Your task to perform on an android device: change notifications settings Image 0: 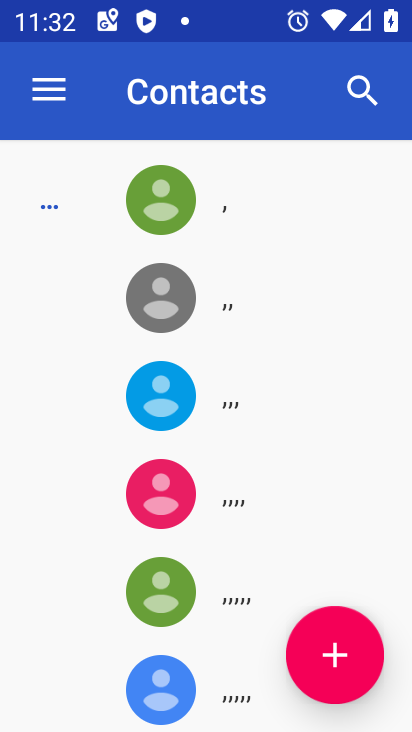
Step 0: press home button
Your task to perform on an android device: change notifications settings Image 1: 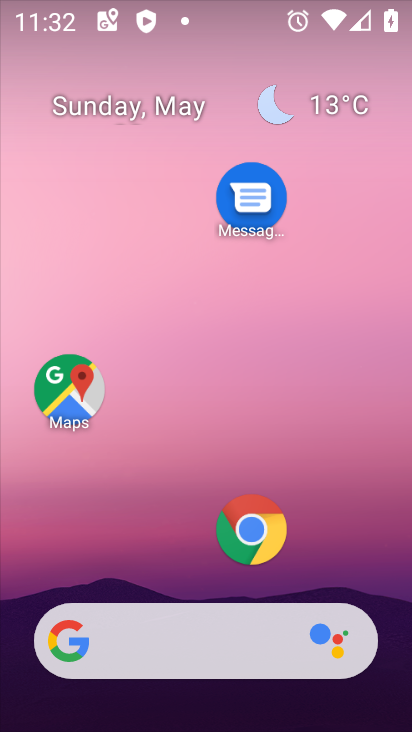
Step 1: drag from (153, 449) to (177, 2)
Your task to perform on an android device: change notifications settings Image 2: 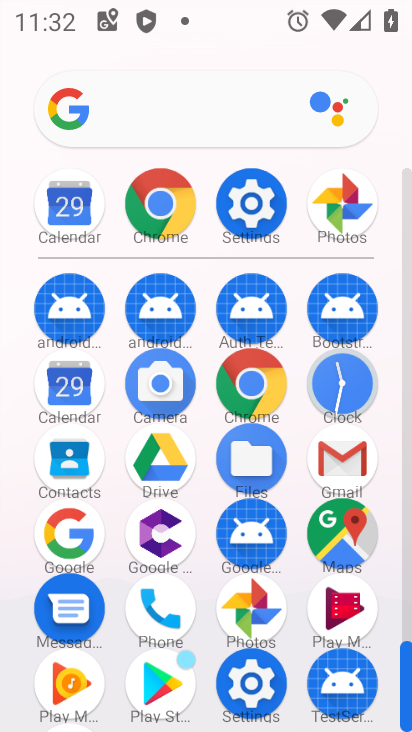
Step 2: click (252, 211)
Your task to perform on an android device: change notifications settings Image 3: 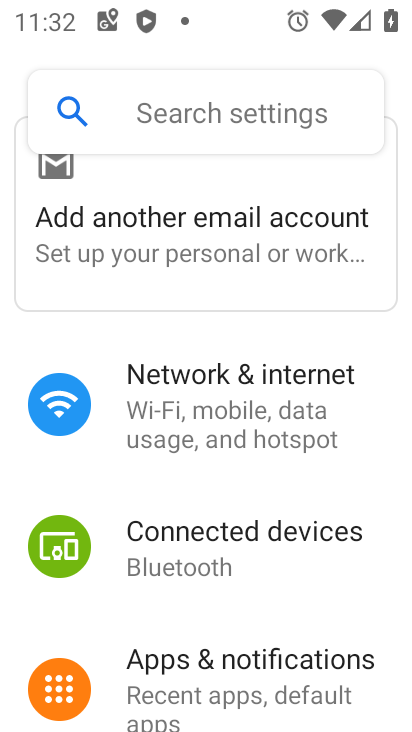
Step 3: click (254, 668)
Your task to perform on an android device: change notifications settings Image 4: 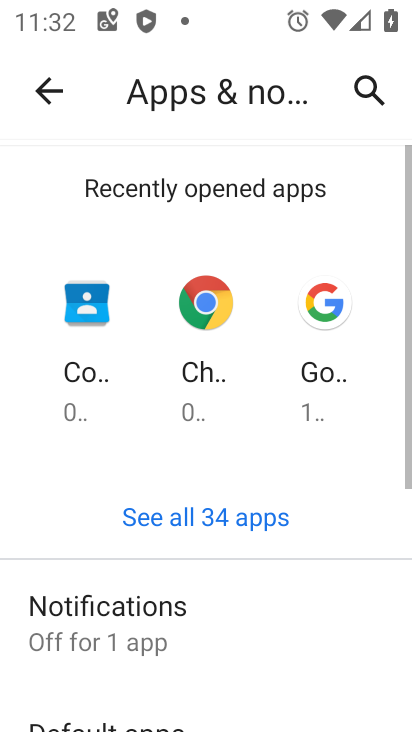
Step 4: drag from (170, 628) to (183, 272)
Your task to perform on an android device: change notifications settings Image 5: 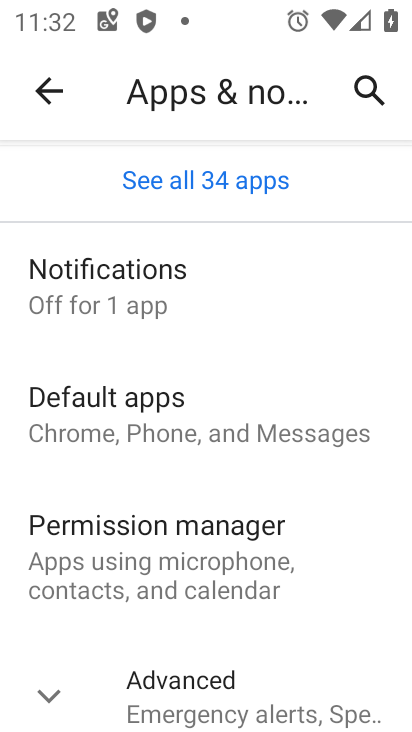
Step 5: click (151, 292)
Your task to perform on an android device: change notifications settings Image 6: 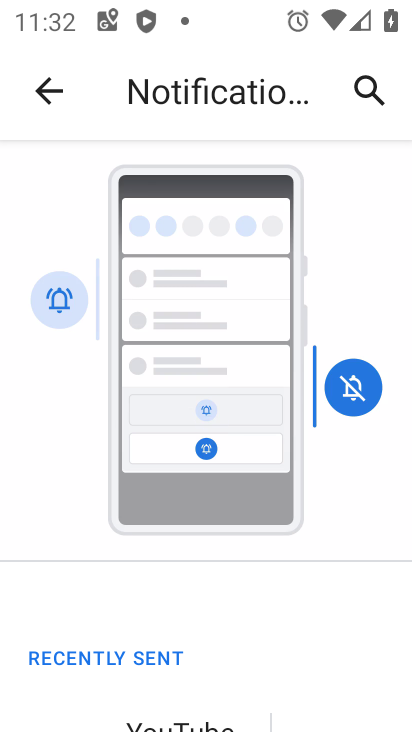
Step 6: drag from (240, 655) to (411, 152)
Your task to perform on an android device: change notifications settings Image 7: 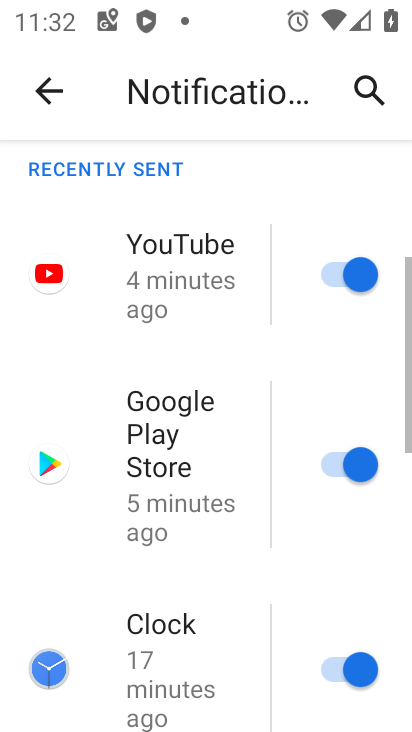
Step 7: click (216, 682)
Your task to perform on an android device: change notifications settings Image 8: 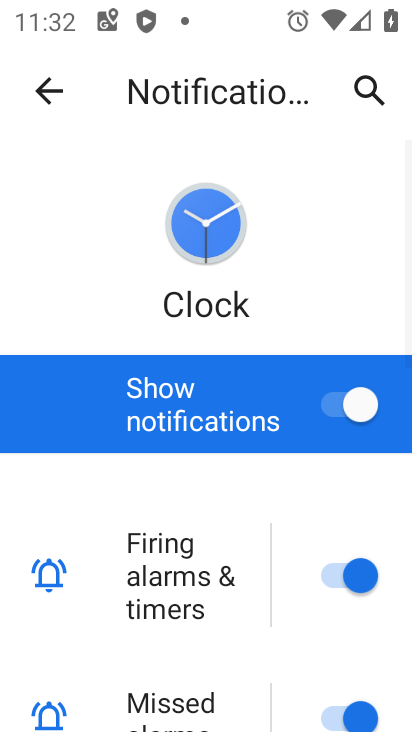
Step 8: click (53, 74)
Your task to perform on an android device: change notifications settings Image 9: 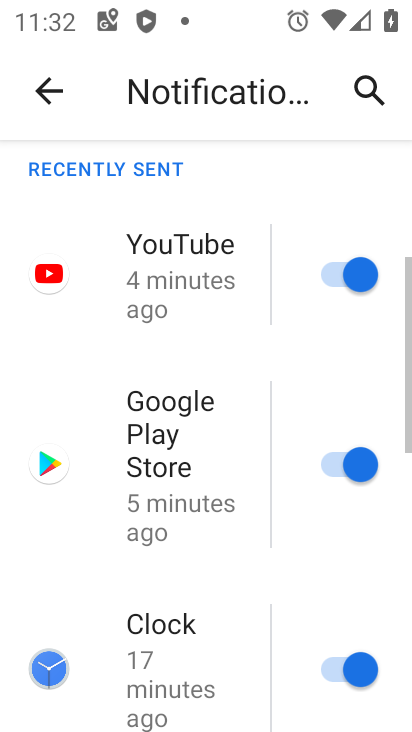
Step 9: drag from (104, 646) to (211, 17)
Your task to perform on an android device: change notifications settings Image 10: 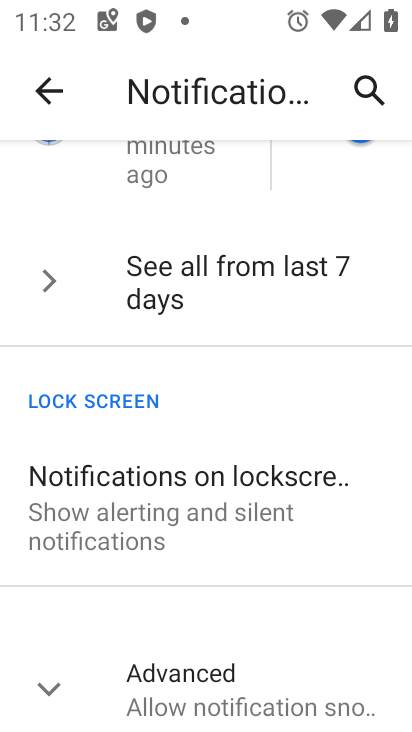
Step 10: click (188, 271)
Your task to perform on an android device: change notifications settings Image 11: 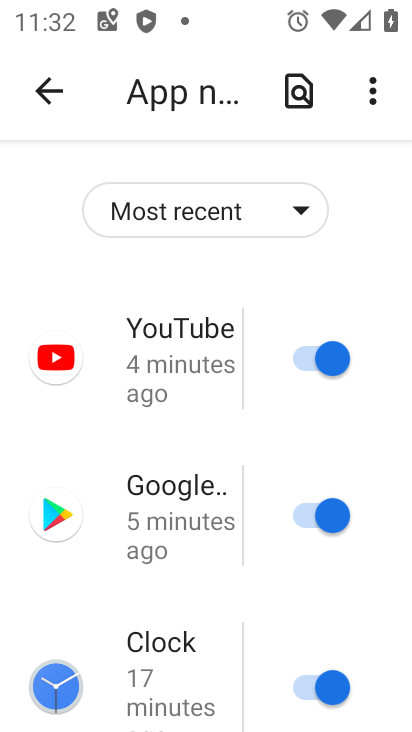
Step 11: click (295, 359)
Your task to perform on an android device: change notifications settings Image 12: 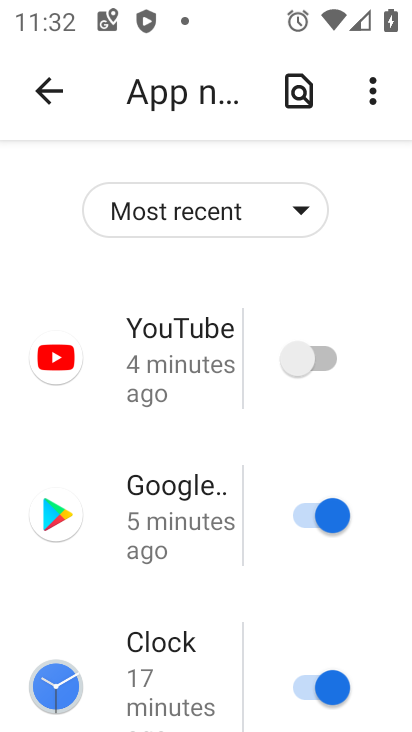
Step 12: click (291, 499)
Your task to perform on an android device: change notifications settings Image 13: 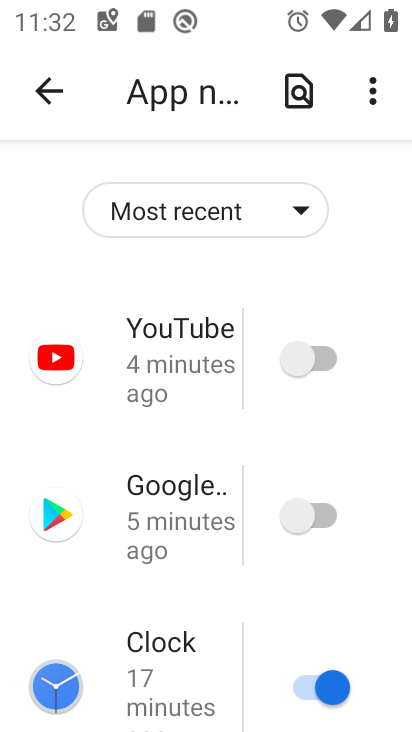
Step 13: click (277, 673)
Your task to perform on an android device: change notifications settings Image 14: 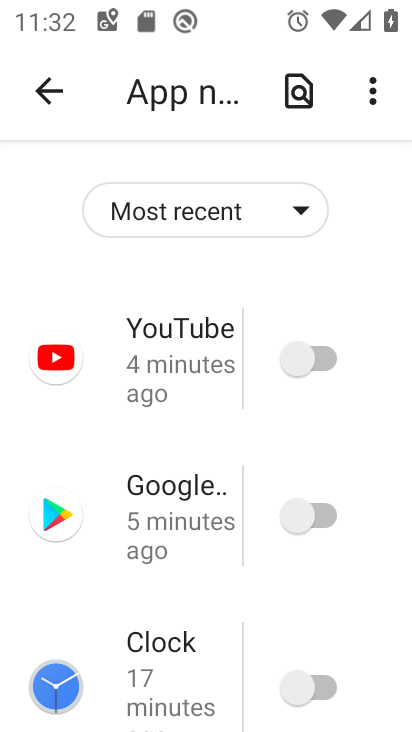
Step 14: drag from (217, 674) to (289, 12)
Your task to perform on an android device: change notifications settings Image 15: 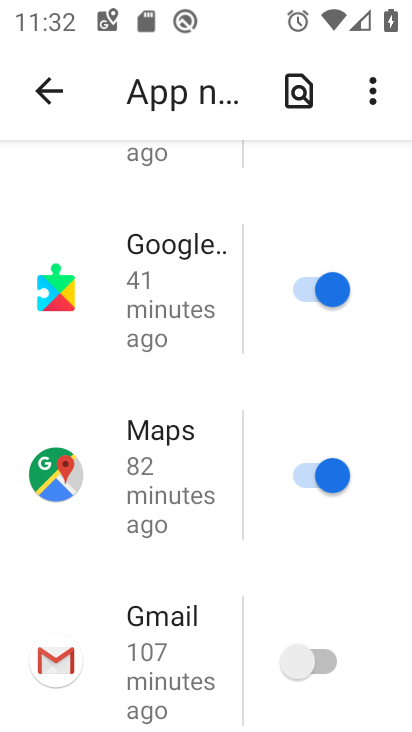
Step 15: click (314, 286)
Your task to perform on an android device: change notifications settings Image 16: 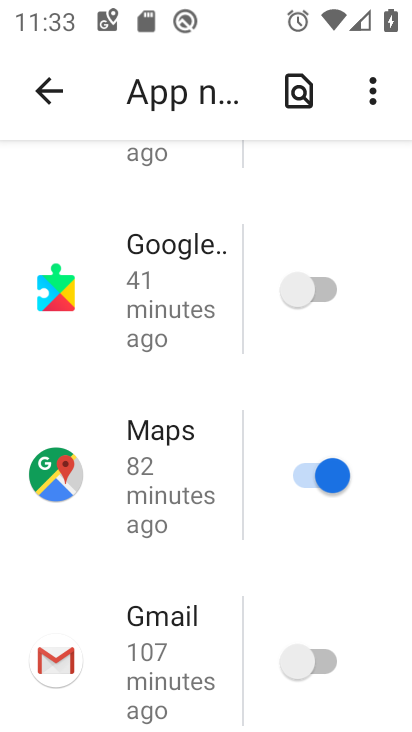
Step 16: click (305, 483)
Your task to perform on an android device: change notifications settings Image 17: 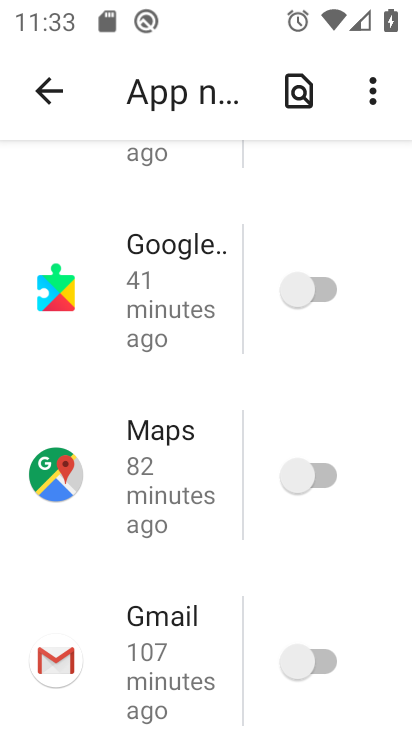
Step 17: drag from (173, 273) to (246, 7)
Your task to perform on an android device: change notifications settings Image 18: 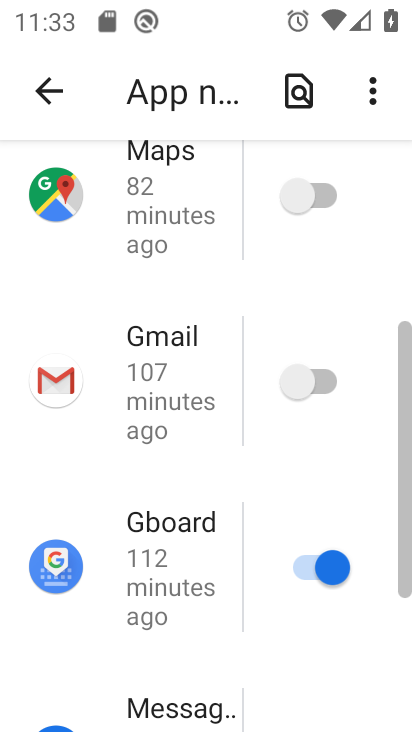
Step 18: click (299, 560)
Your task to perform on an android device: change notifications settings Image 19: 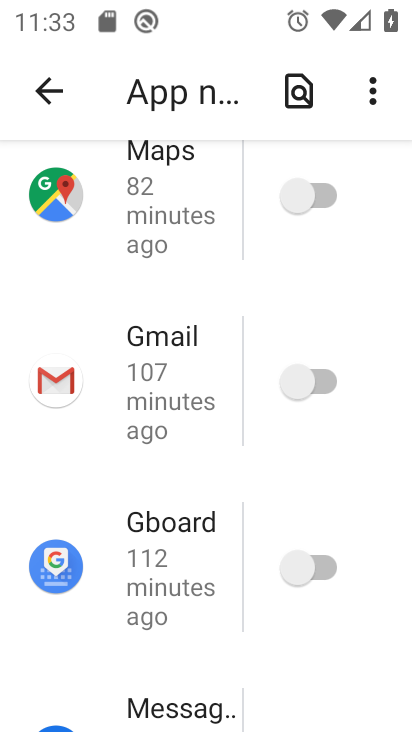
Step 19: drag from (234, 629) to (309, 83)
Your task to perform on an android device: change notifications settings Image 20: 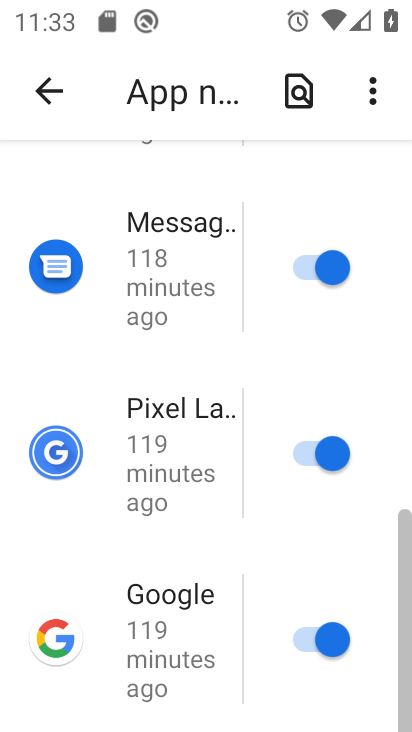
Step 20: click (288, 251)
Your task to perform on an android device: change notifications settings Image 21: 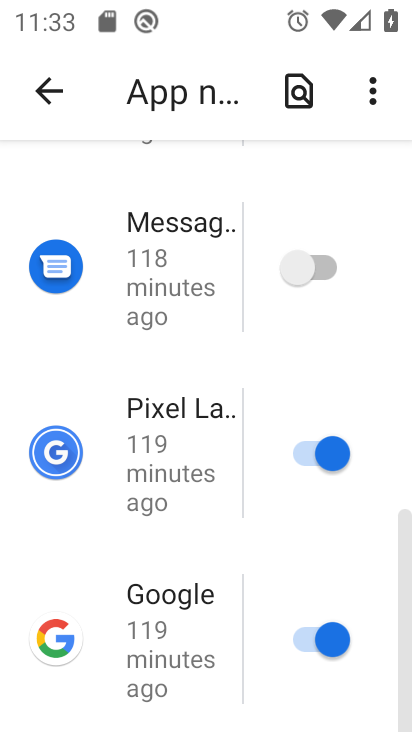
Step 21: click (293, 462)
Your task to perform on an android device: change notifications settings Image 22: 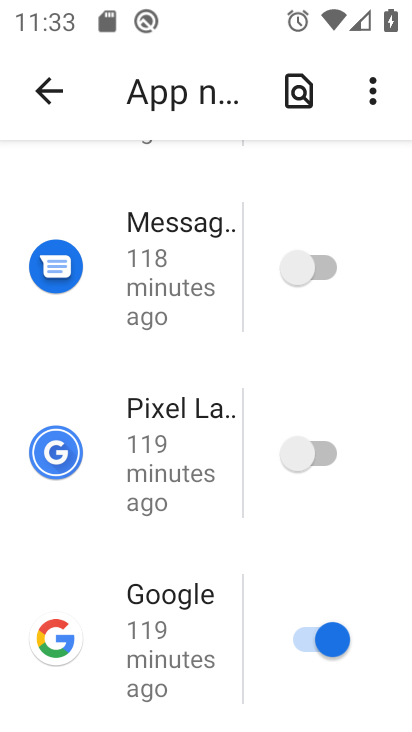
Step 22: click (289, 624)
Your task to perform on an android device: change notifications settings Image 23: 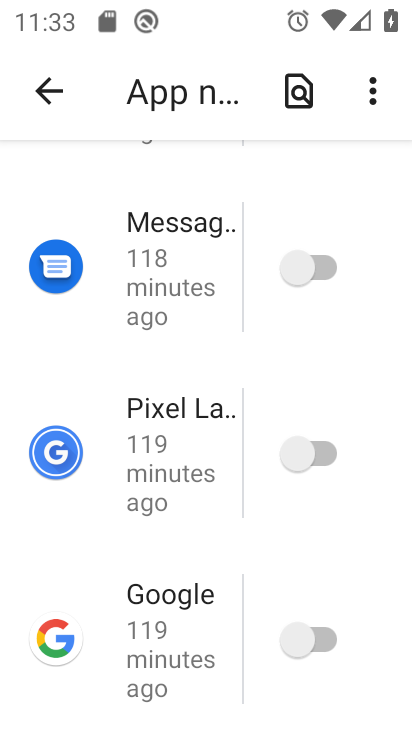
Step 23: task complete